Your task to perform on an android device: What's the weather going to be tomorrow? Image 0: 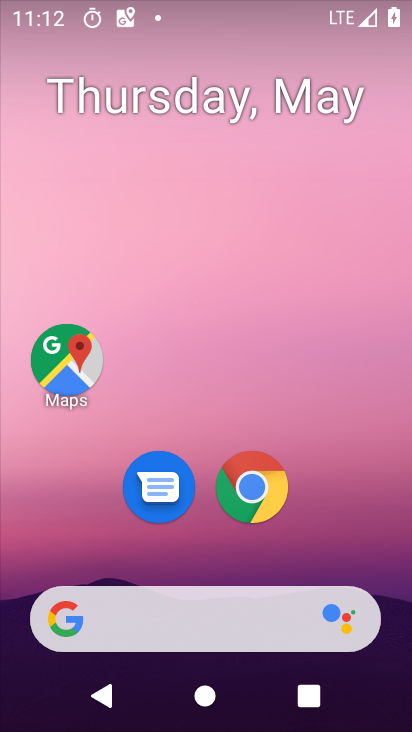
Step 0: drag from (282, 620) to (214, 37)
Your task to perform on an android device: What's the weather going to be tomorrow? Image 1: 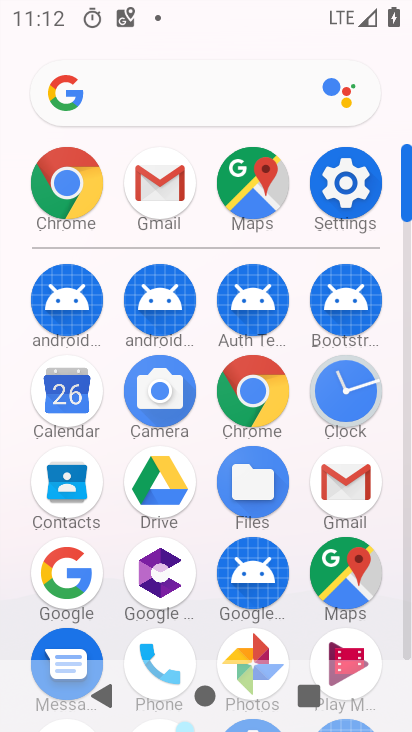
Step 1: drag from (270, 469) to (264, 208)
Your task to perform on an android device: What's the weather going to be tomorrow? Image 2: 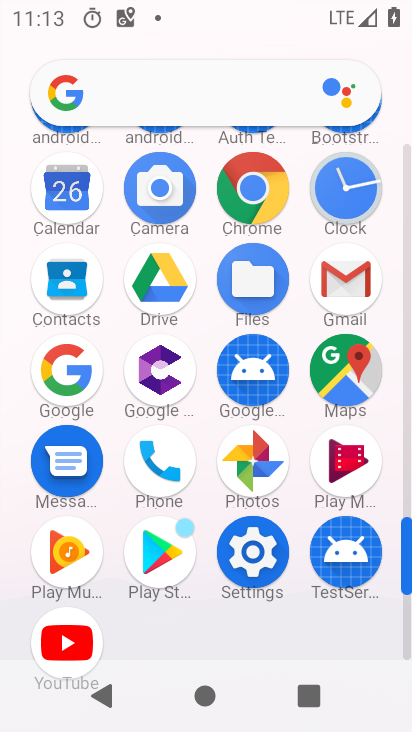
Step 2: click (81, 383)
Your task to perform on an android device: What's the weather going to be tomorrow? Image 3: 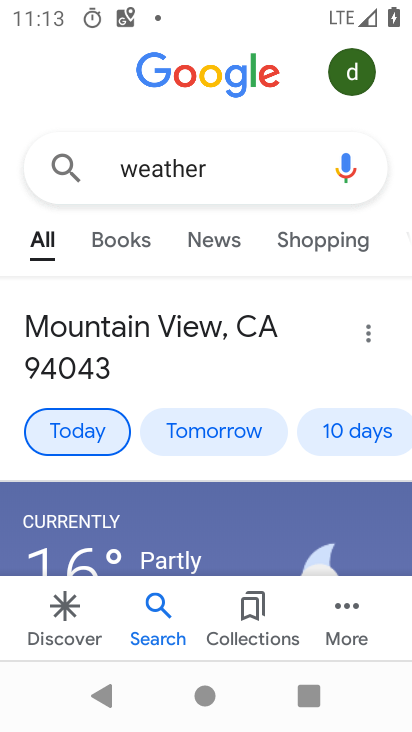
Step 3: click (204, 423)
Your task to perform on an android device: What's the weather going to be tomorrow? Image 4: 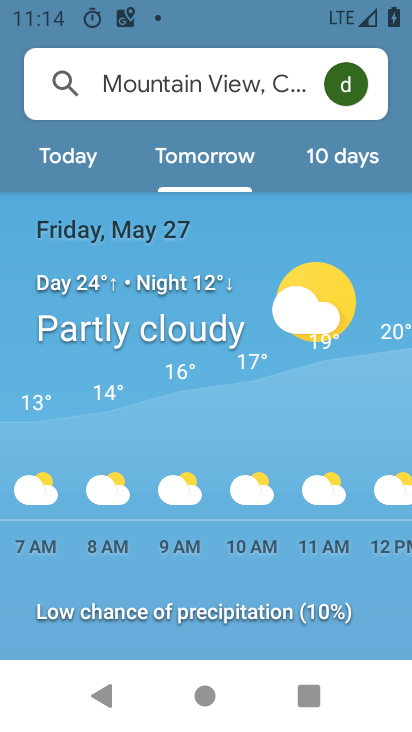
Step 4: task complete